Your task to perform on an android device: Open the map Image 0: 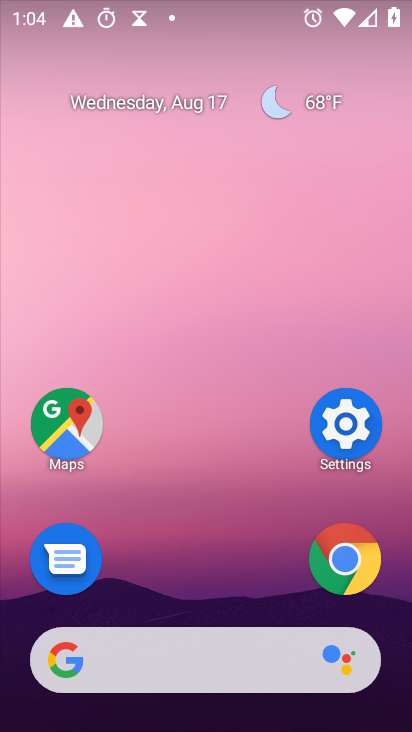
Step 0: click (70, 432)
Your task to perform on an android device: Open the map Image 1: 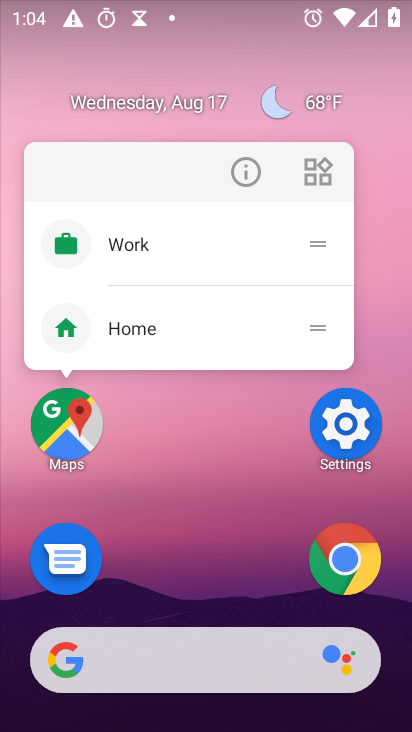
Step 1: click (66, 421)
Your task to perform on an android device: Open the map Image 2: 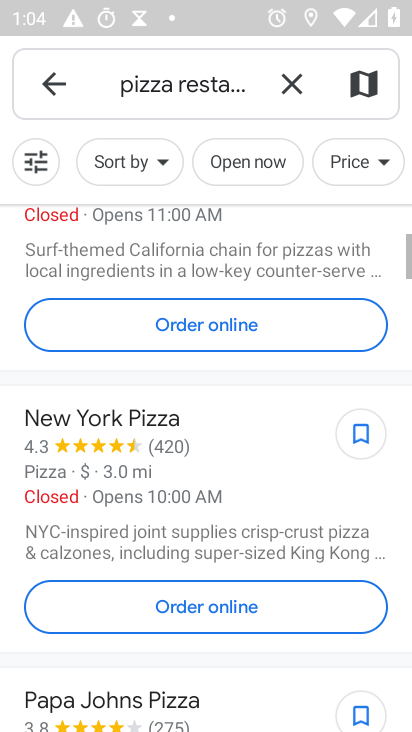
Step 2: task complete